Your task to perform on an android device: Search for Mexican restaurants on Maps Image 0: 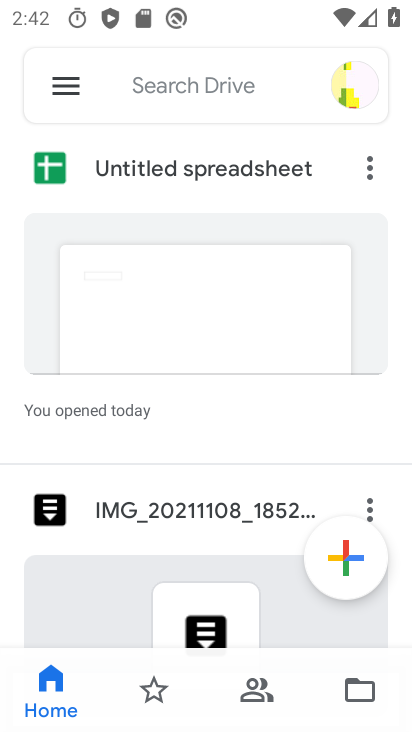
Step 0: press home button
Your task to perform on an android device: Search for Mexican restaurants on Maps Image 1: 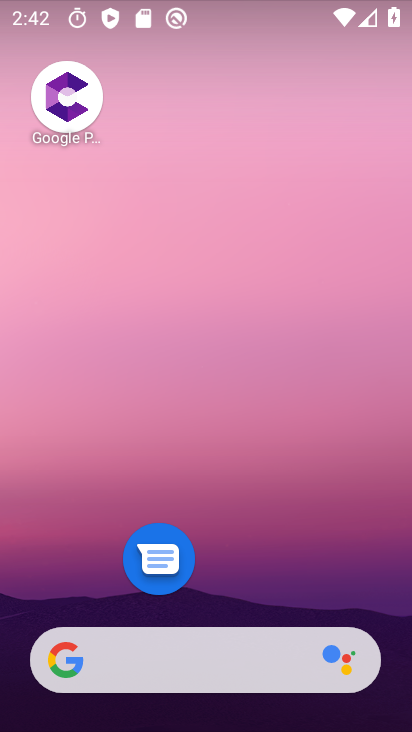
Step 1: drag from (252, 563) to (208, 38)
Your task to perform on an android device: Search for Mexican restaurants on Maps Image 2: 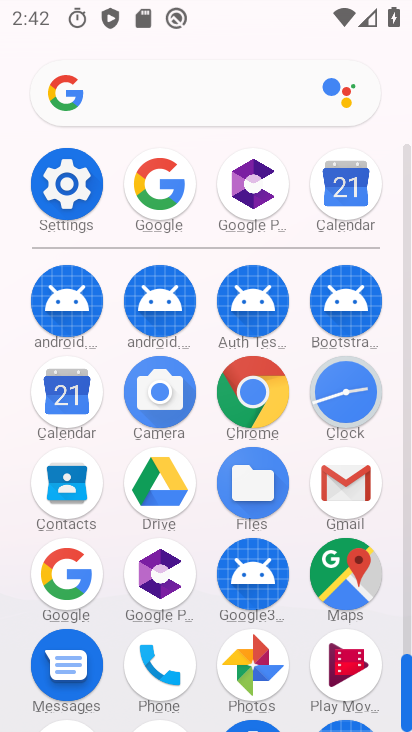
Step 2: click (349, 571)
Your task to perform on an android device: Search for Mexican restaurants on Maps Image 3: 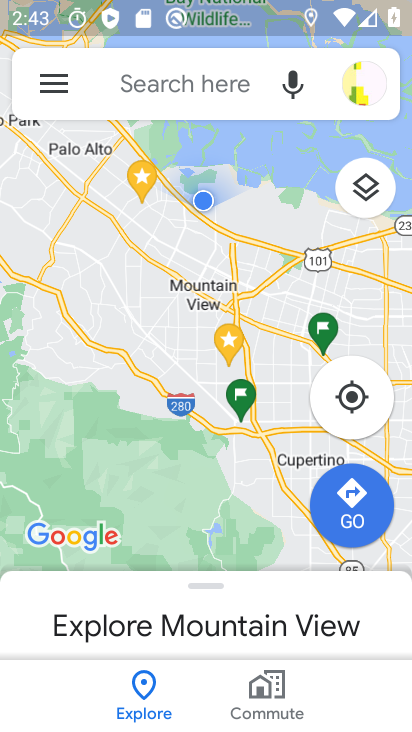
Step 3: click (187, 88)
Your task to perform on an android device: Search for Mexican restaurants on Maps Image 4: 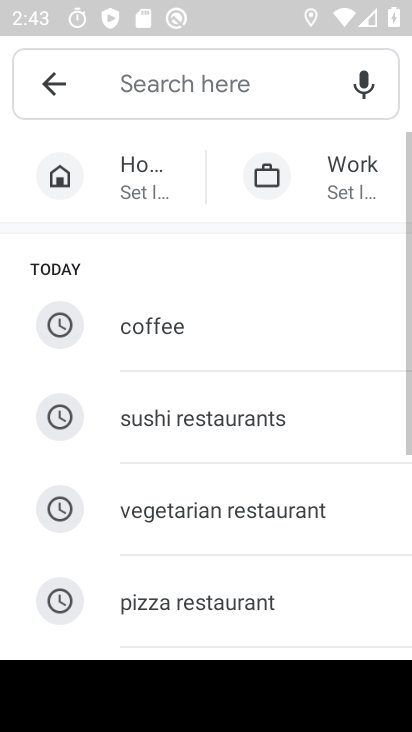
Step 4: drag from (263, 494) to (243, 184)
Your task to perform on an android device: Search for Mexican restaurants on Maps Image 5: 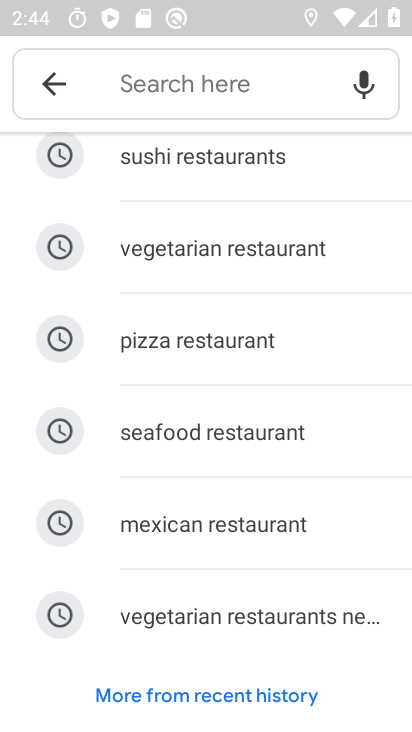
Step 5: click (150, 527)
Your task to perform on an android device: Search for Mexican restaurants on Maps Image 6: 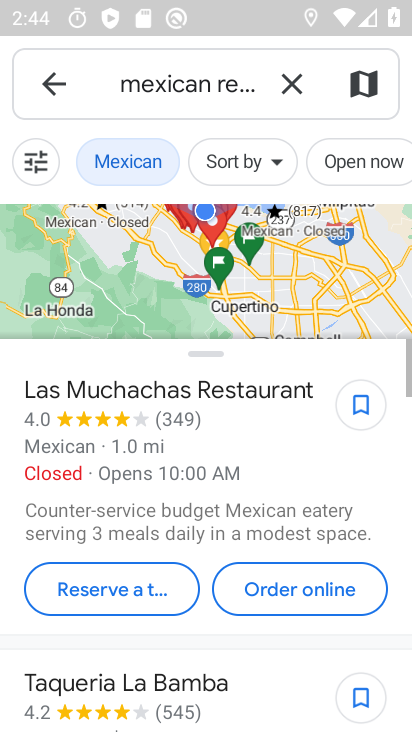
Step 6: task complete